Your task to perform on an android device: Open settings on Google Maps Image 0: 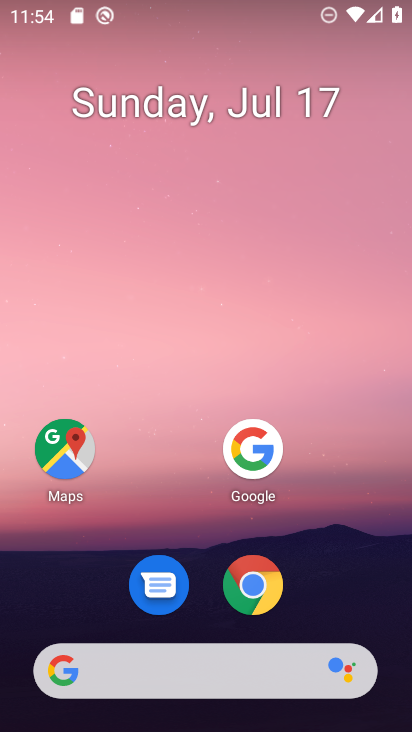
Step 0: press home button
Your task to perform on an android device: Open settings on Google Maps Image 1: 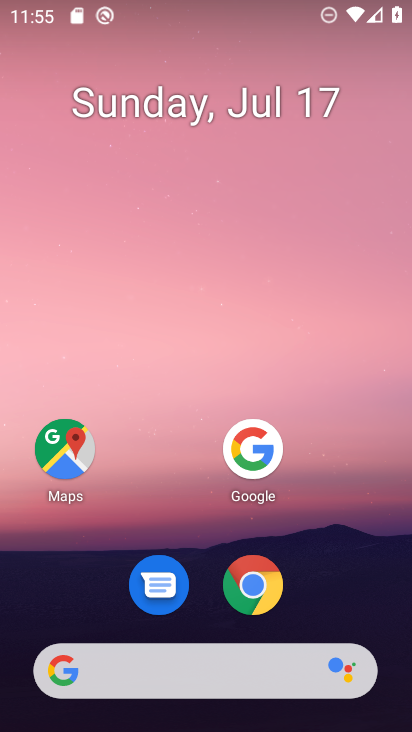
Step 1: click (65, 457)
Your task to perform on an android device: Open settings on Google Maps Image 2: 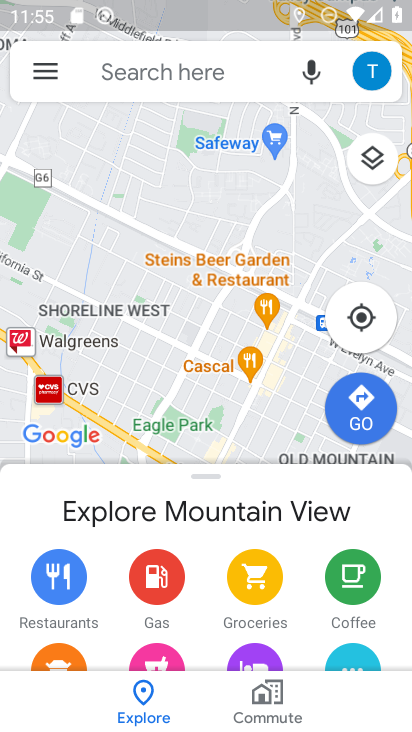
Step 2: click (56, 69)
Your task to perform on an android device: Open settings on Google Maps Image 3: 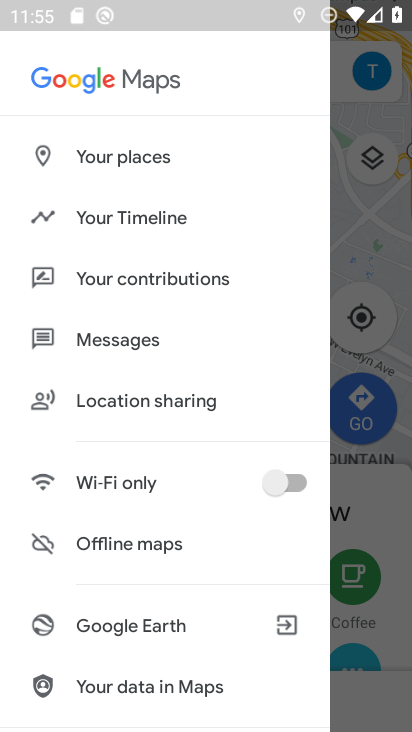
Step 3: drag from (161, 668) to (162, 65)
Your task to perform on an android device: Open settings on Google Maps Image 4: 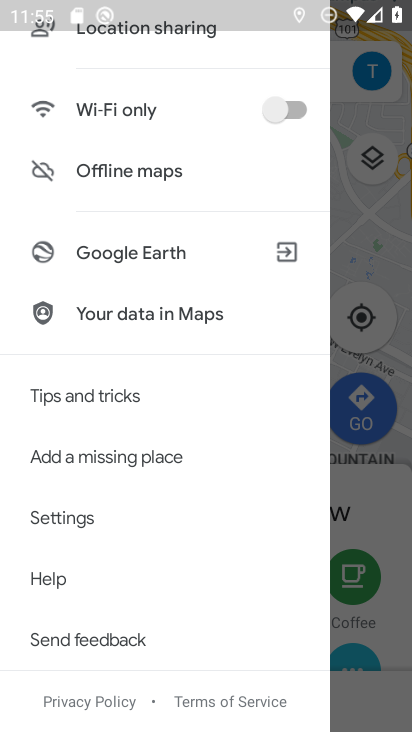
Step 4: click (94, 518)
Your task to perform on an android device: Open settings on Google Maps Image 5: 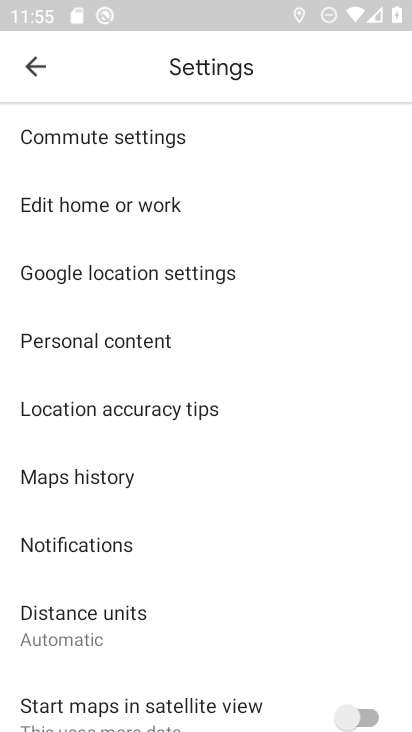
Step 5: task complete